Your task to perform on an android device: When is my next meeting? Image 0: 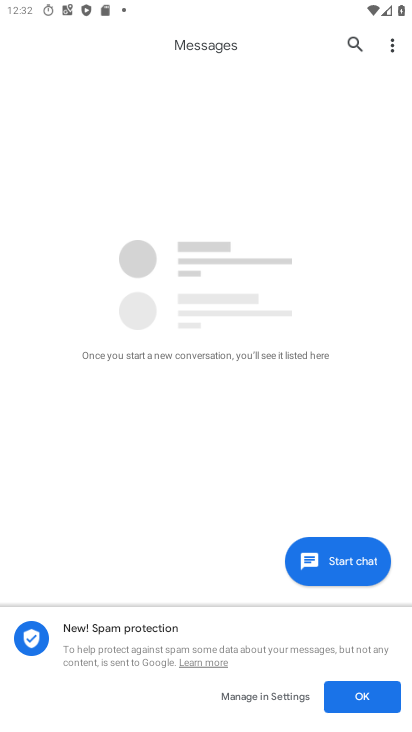
Step 0: press home button
Your task to perform on an android device: When is my next meeting? Image 1: 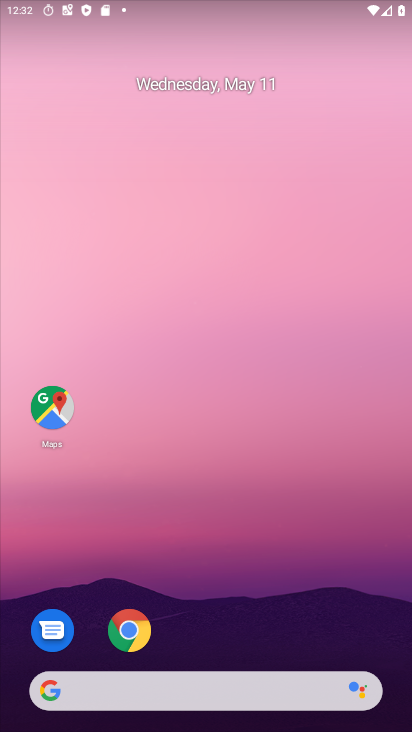
Step 1: drag from (252, 511) to (300, 68)
Your task to perform on an android device: When is my next meeting? Image 2: 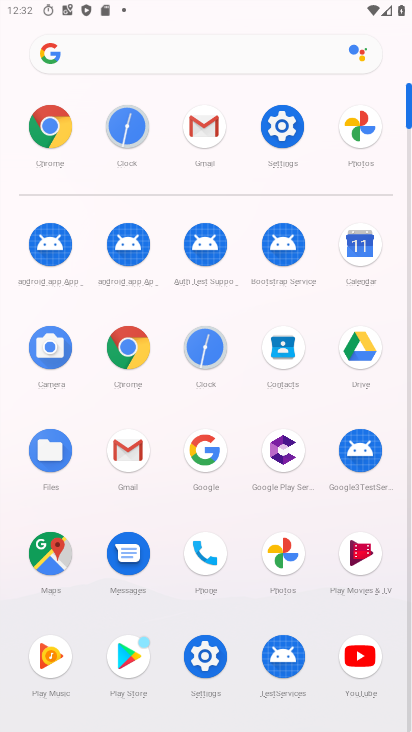
Step 2: click (369, 242)
Your task to perform on an android device: When is my next meeting? Image 3: 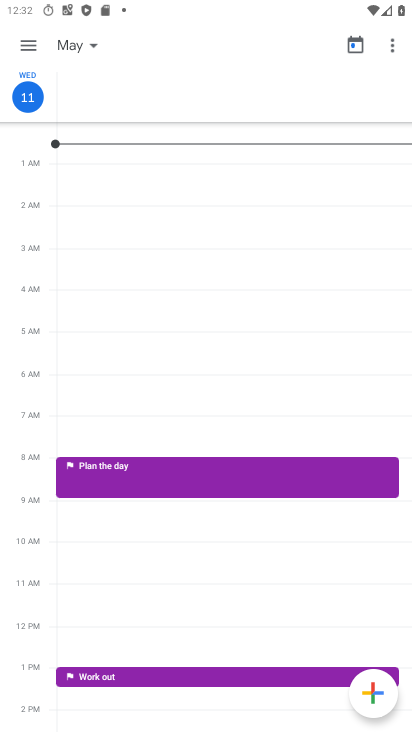
Step 3: task complete